Your task to perform on an android device: toggle location history Image 0: 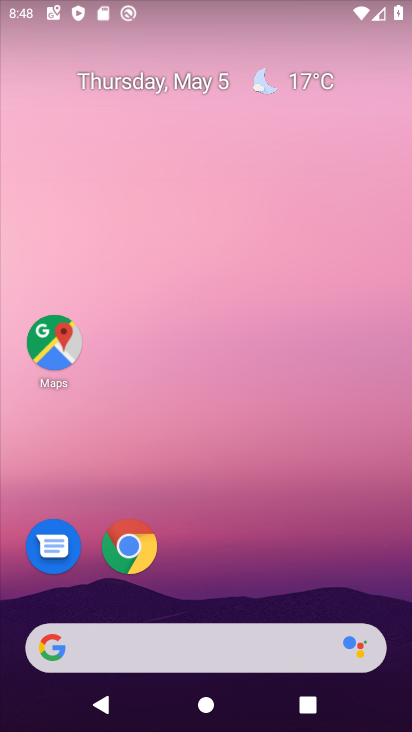
Step 0: drag from (193, 654) to (315, 54)
Your task to perform on an android device: toggle location history Image 1: 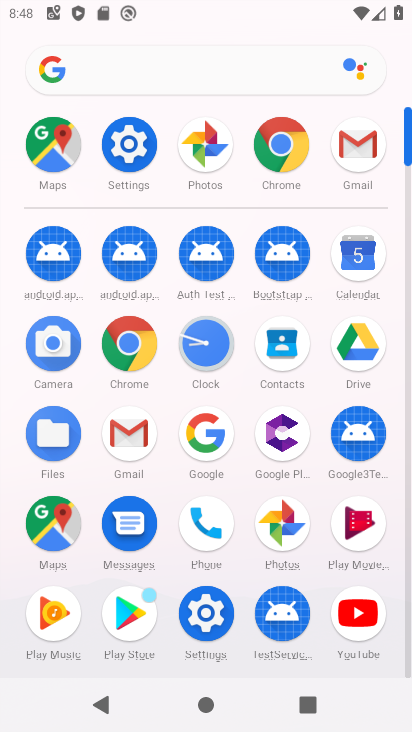
Step 1: click (54, 164)
Your task to perform on an android device: toggle location history Image 2: 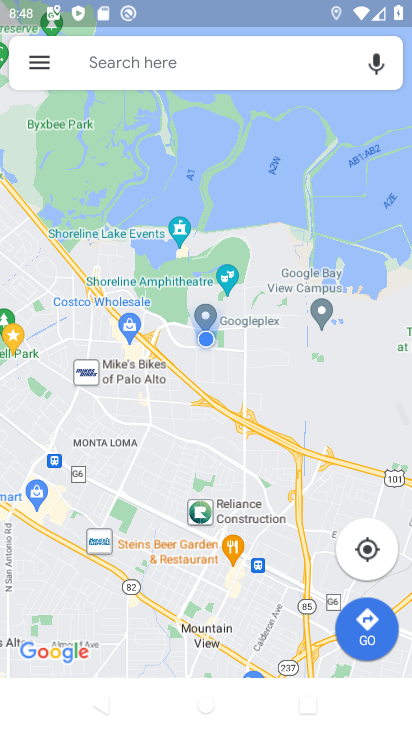
Step 2: click (31, 61)
Your task to perform on an android device: toggle location history Image 3: 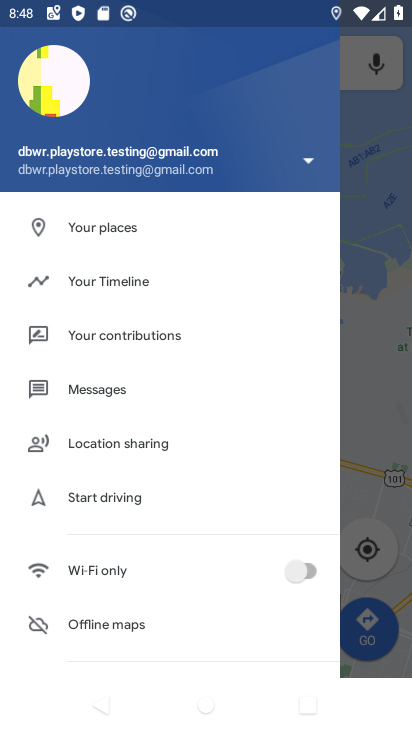
Step 3: click (114, 278)
Your task to perform on an android device: toggle location history Image 4: 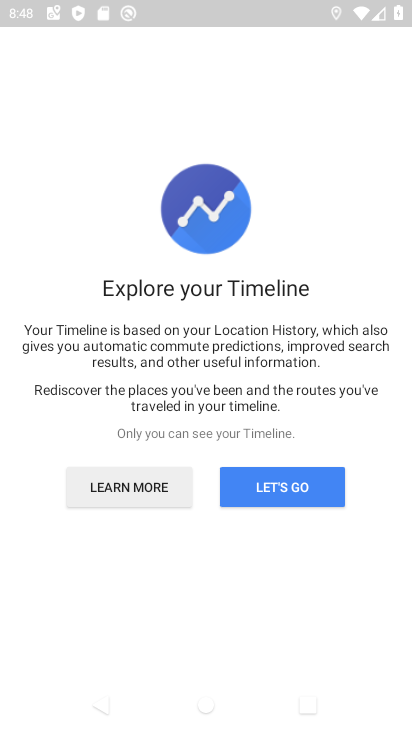
Step 4: click (286, 494)
Your task to perform on an android device: toggle location history Image 5: 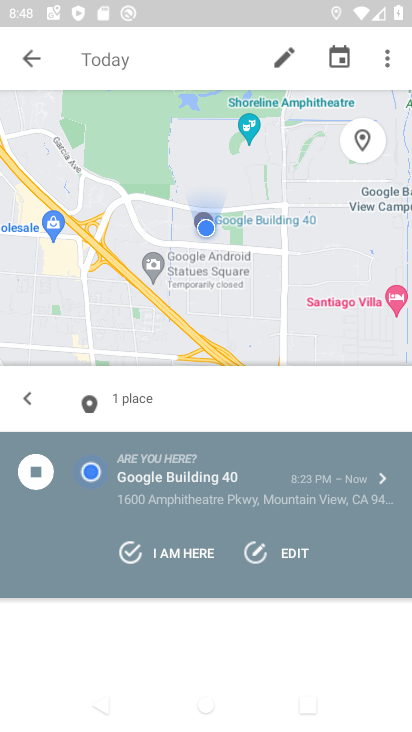
Step 5: click (384, 63)
Your task to perform on an android device: toggle location history Image 6: 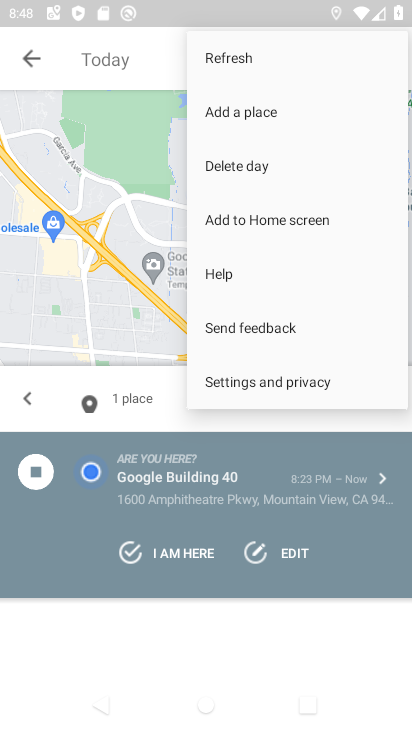
Step 6: click (241, 385)
Your task to perform on an android device: toggle location history Image 7: 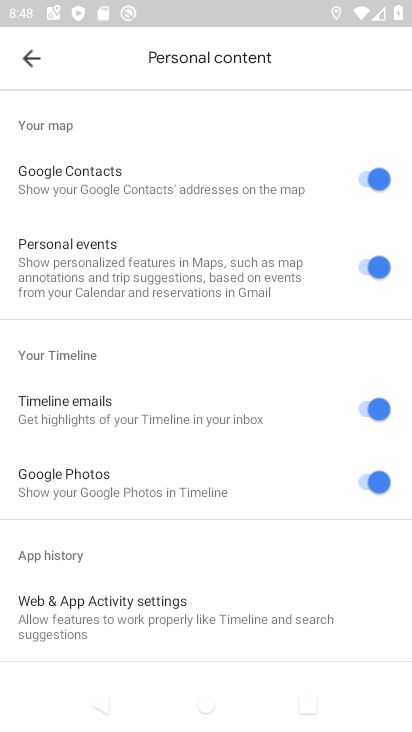
Step 7: drag from (160, 589) to (342, 158)
Your task to perform on an android device: toggle location history Image 8: 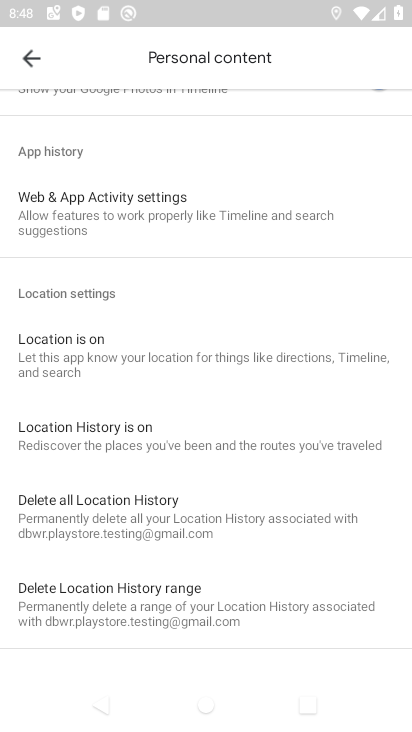
Step 8: click (141, 437)
Your task to perform on an android device: toggle location history Image 9: 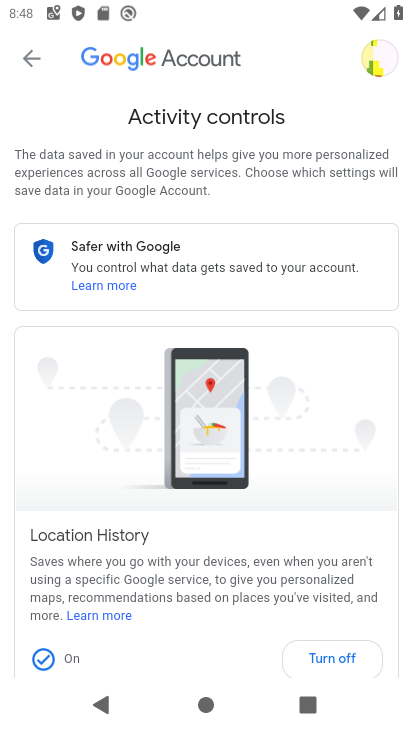
Step 9: drag from (199, 598) to (358, 68)
Your task to perform on an android device: toggle location history Image 10: 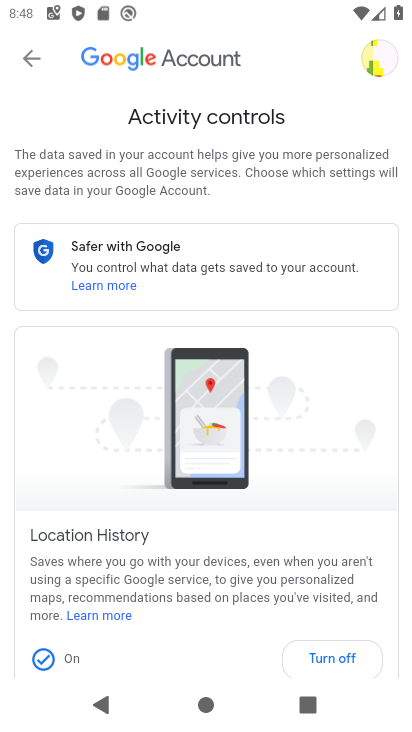
Step 10: drag from (154, 611) to (318, 180)
Your task to perform on an android device: toggle location history Image 11: 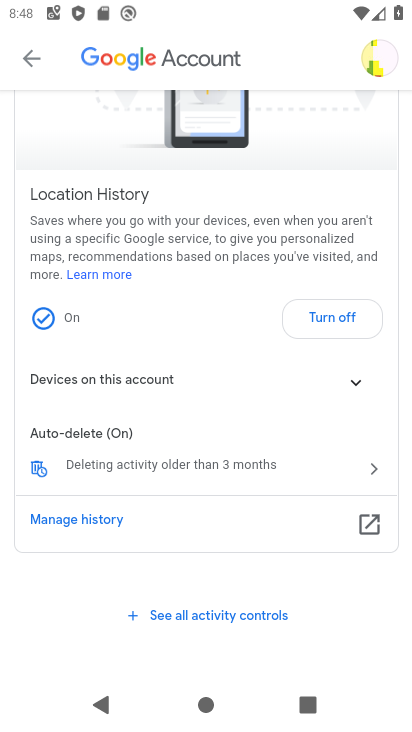
Step 11: click (343, 314)
Your task to perform on an android device: toggle location history Image 12: 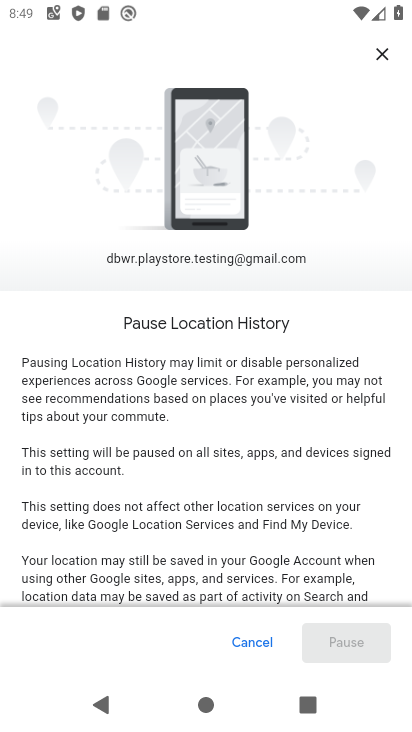
Step 12: drag from (211, 586) to (363, 87)
Your task to perform on an android device: toggle location history Image 13: 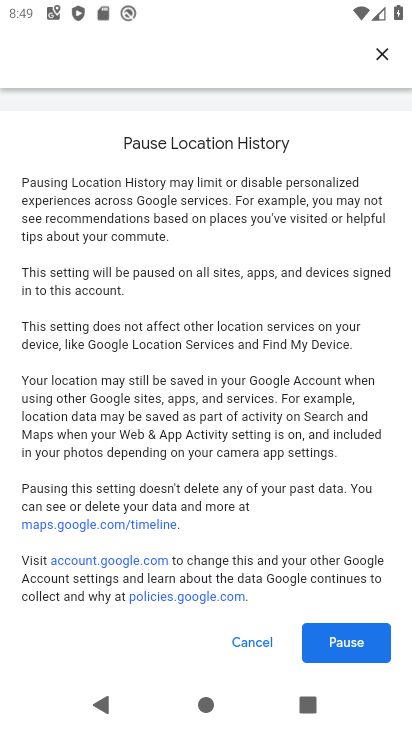
Step 13: click (338, 650)
Your task to perform on an android device: toggle location history Image 14: 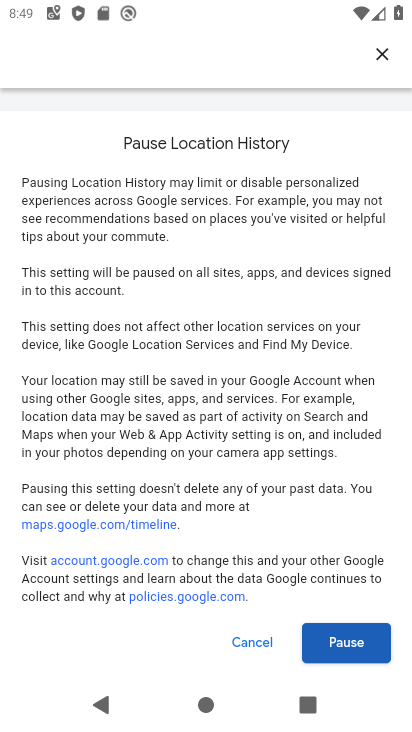
Step 14: click (344, 642)
Your task to perform on an android device: toggle location history Image 15: 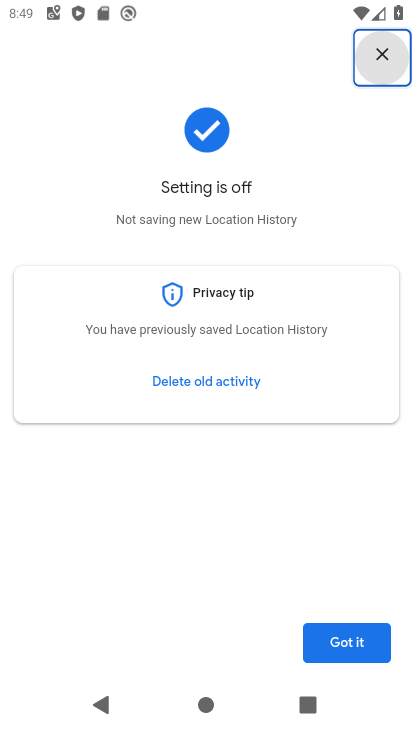
Step 15: click (350, 647)
Your task to perform on an android device: toggle location history Image 16: 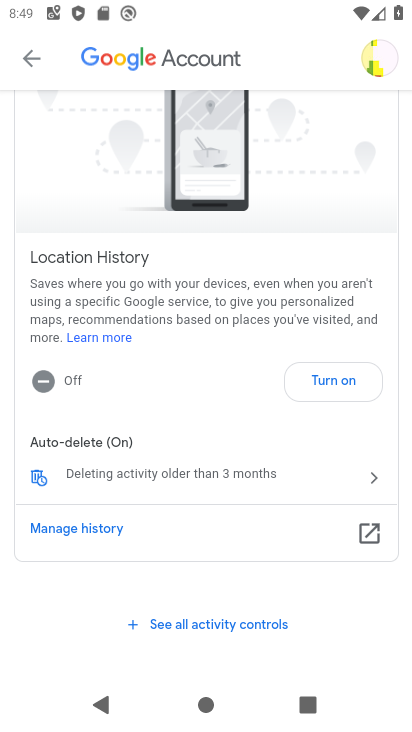
Step 16: task complete